Your task to perform on an android device: see creations saved in the google photos Image 0: 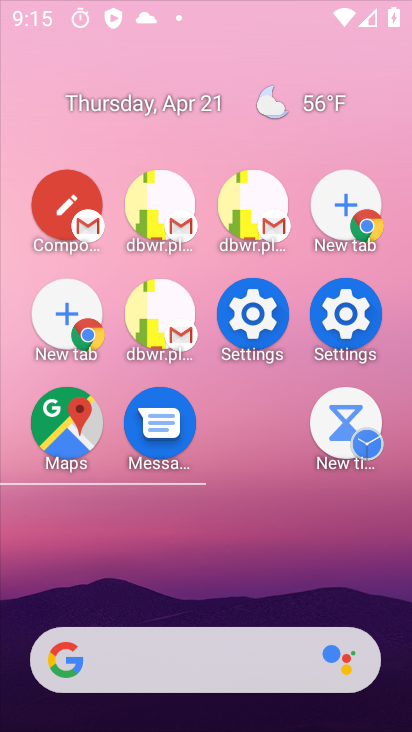
Step 0: click (199, 176)
Your task to perform on an android device: see creations saved in the google photos Image 1: 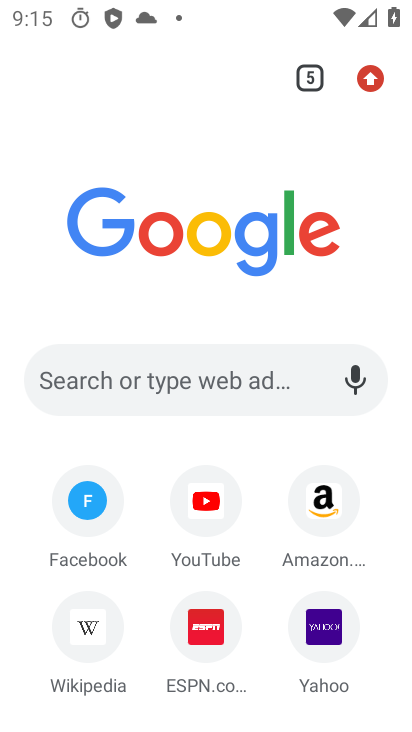
Step 1: press home button
Your task to perform on an android device: see creations saved in the google photos Image 2: 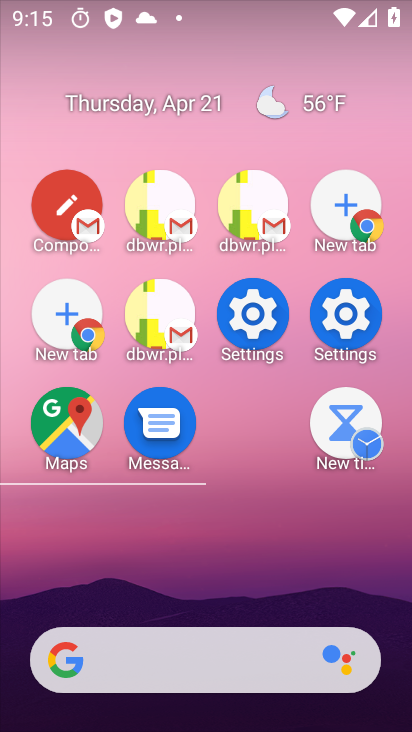
Step 2: drag from (172, 539) to (168, 63)
Your task to perform on an android device: see creations saved in the google photos Image 3: 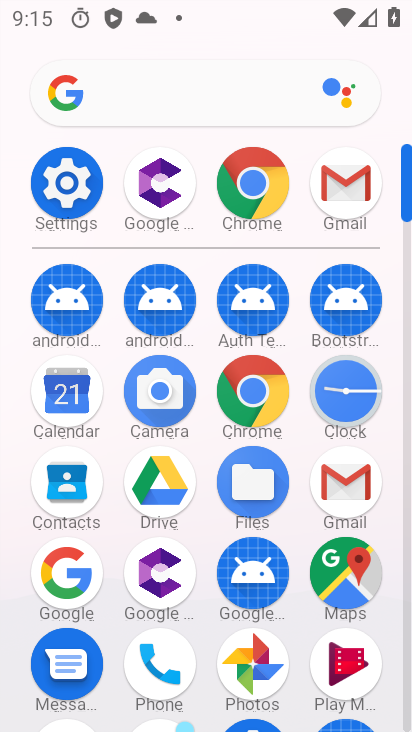
Step 3: click (252, 653)
Your task to perform on an android device: see creations saved in the google photos Image 4: 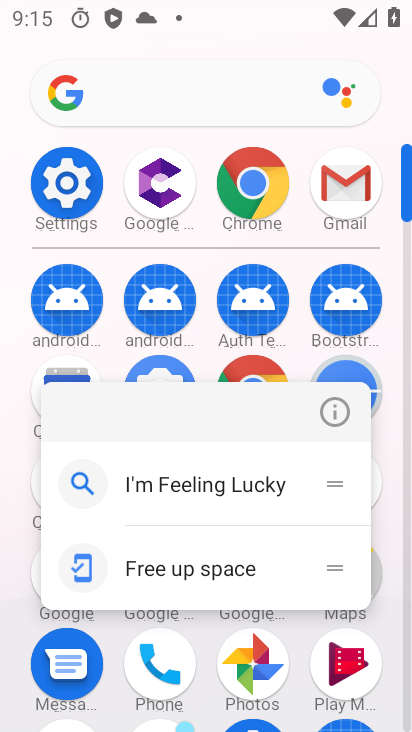
Step 4: click (250, 668)
Your task to perform on an android device: see creations saved in the google photos Image 5: 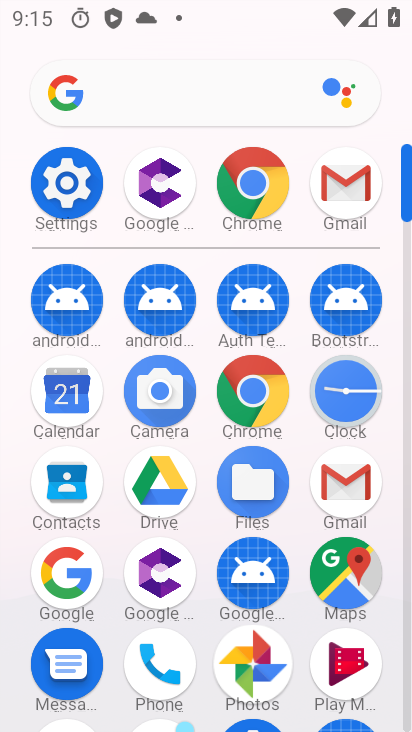
Step 5: click (250, 668)
Your task to perform on an android device: see creations saved in the google photos Image 6: 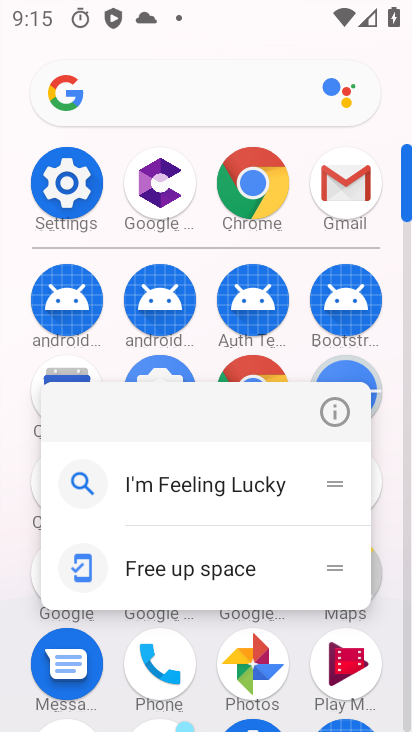
Step 6: click (250, 668)
Your task to perform on an android device: see creations saved in the google photos Image 7: 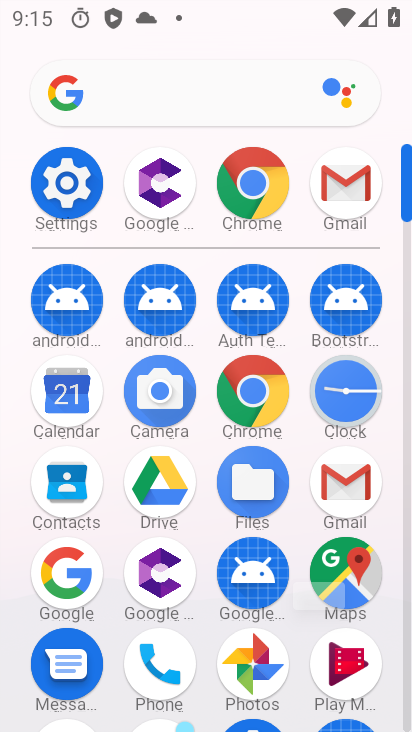
Step 7: click (250, 666)
Your task to perform on an android device: see creations saved in the google photos Image 8: 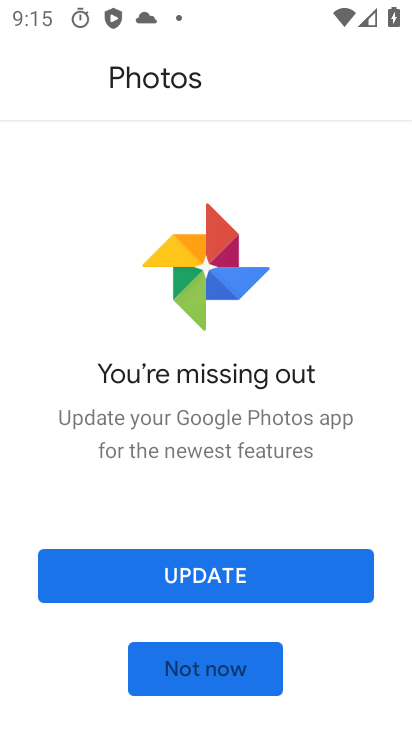
Step 8: click (189, 667)
Your task to perform on an android device: see creations saved in the google photos Image 9: 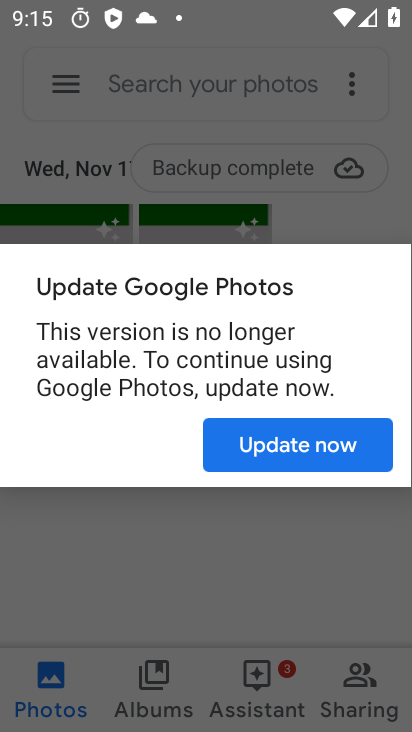
Step 9: click (303, 439)
Your task to perform on an android device: see creations saved in the google photos Image 10: 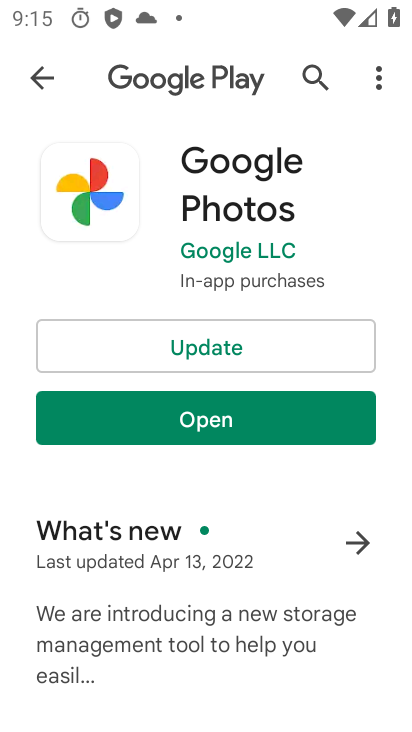
Step 10: click (32, 74)
Your task to perform on an android device: see creations saved in the google photos Image 11: 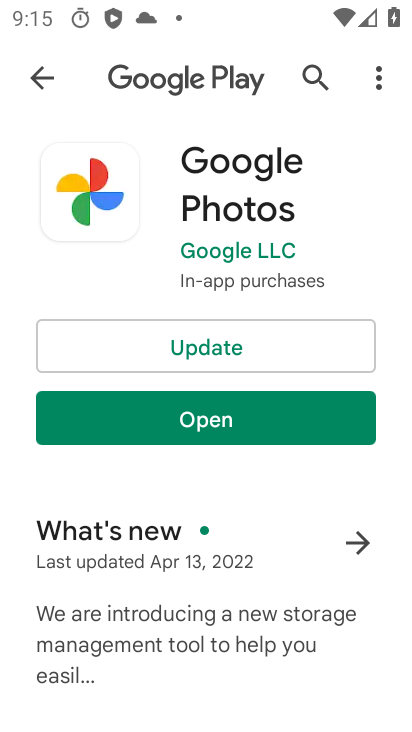
Step 11: click (36, 76)
Your task to perform on an android device: see creations saved in the google photos Image 12: 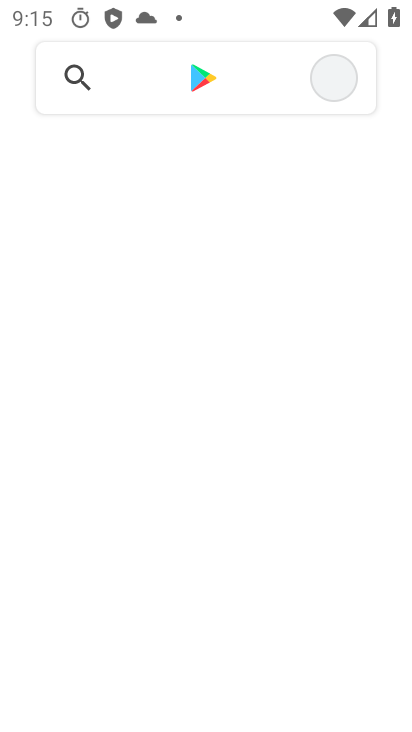
Step 12: click (39, 78)
Your task to perform on an android device: see creations saved in the google photos Image 13: 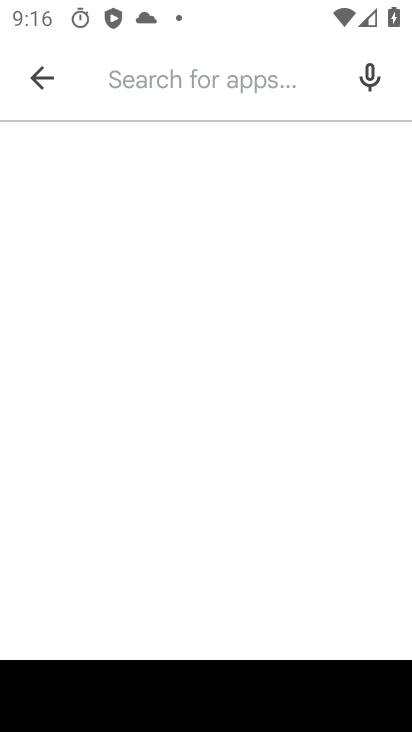
Step 13: click (34, 76)
Your task to perform on an android device: see creations saved in the google photos Image 14: 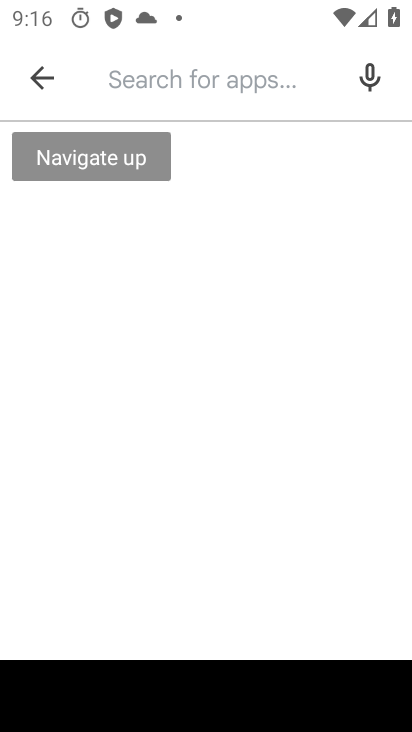
Step 14: click (34, 76)
Your task to perform on an android device: see creations saved in the google photos Image 15: 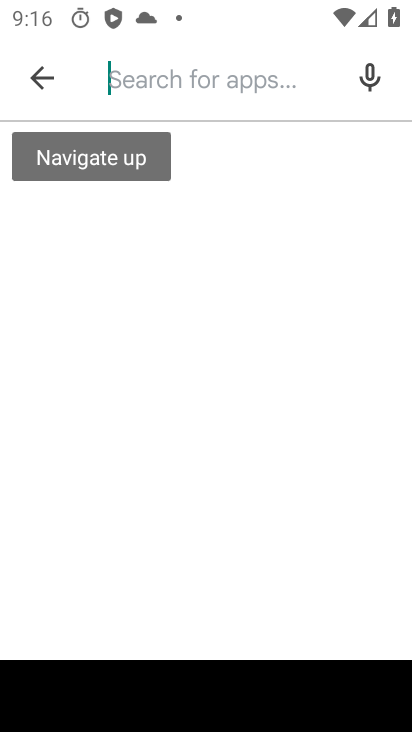
Step 15: click (34, 76)
Your task to perform on an android device: see creations saved in the google photos Image 16: 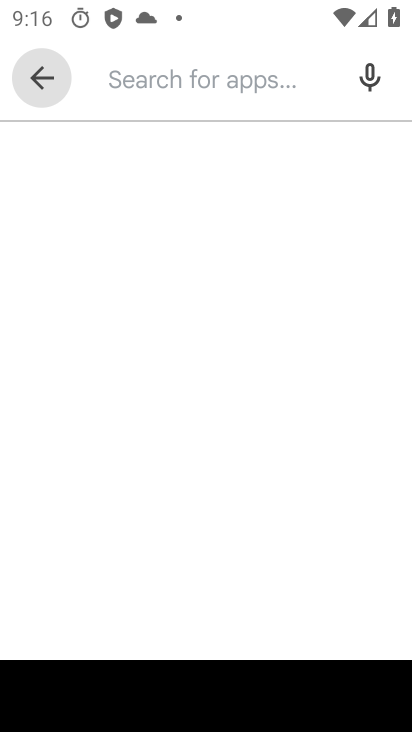
Step 16: click (33, 63)
Your task to perform on an android device: see creations saved in the google photos Image 17: 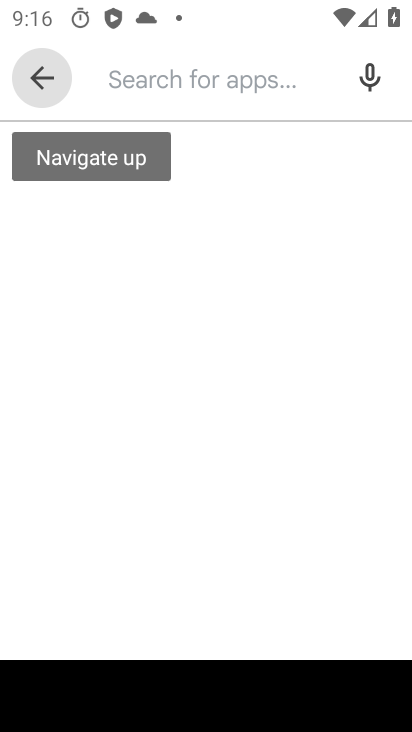
Step 17: click (41, 73)
Your task to perform on an android device: see creations saved in the google photos Image 18: 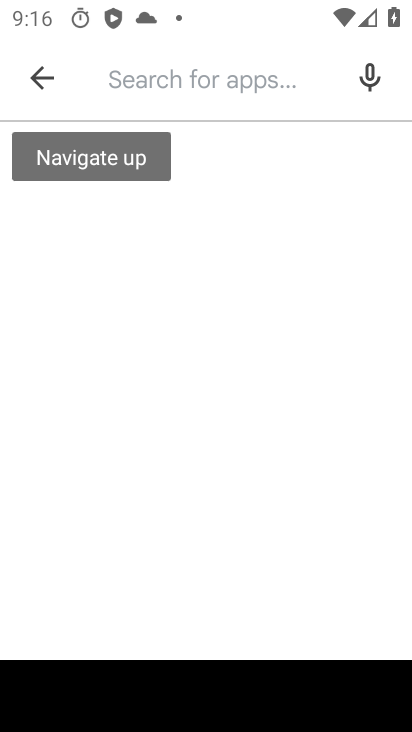
Step 18: task complete